Your task to perform on an android device: open app "Microsoft Outlook" (install if not already installed) Image 0: 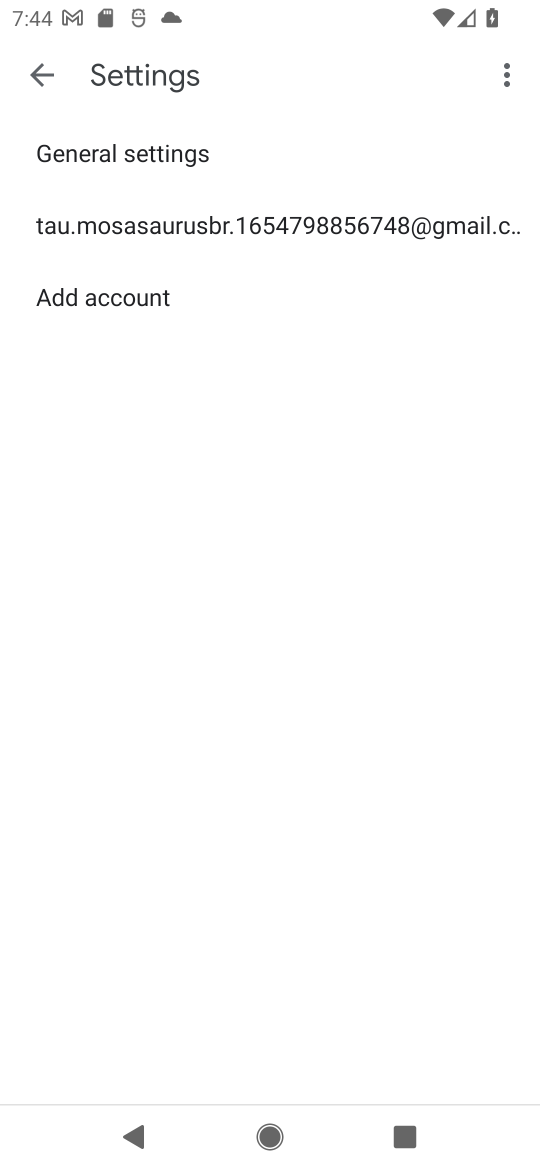
Step 0: press home button
Your task to perform on an android device: open app "Microsoft Outlook" (install if not already installed) Image 1: 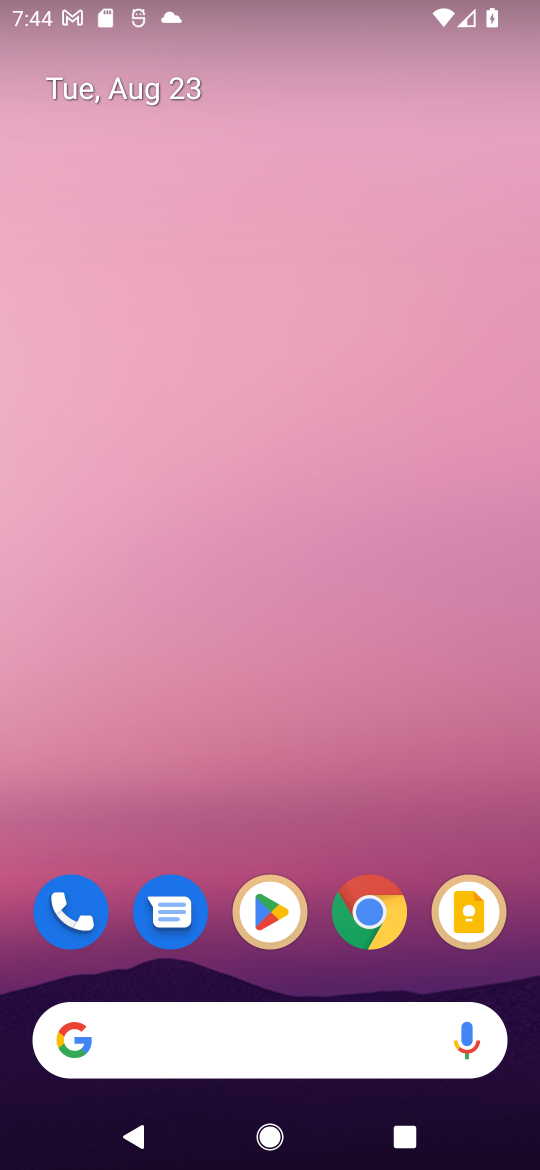
Step 1: click (267, 915)
Your task to perform on an android device: open app "Microsoft Outlook" (install if not already installed) Image 2: 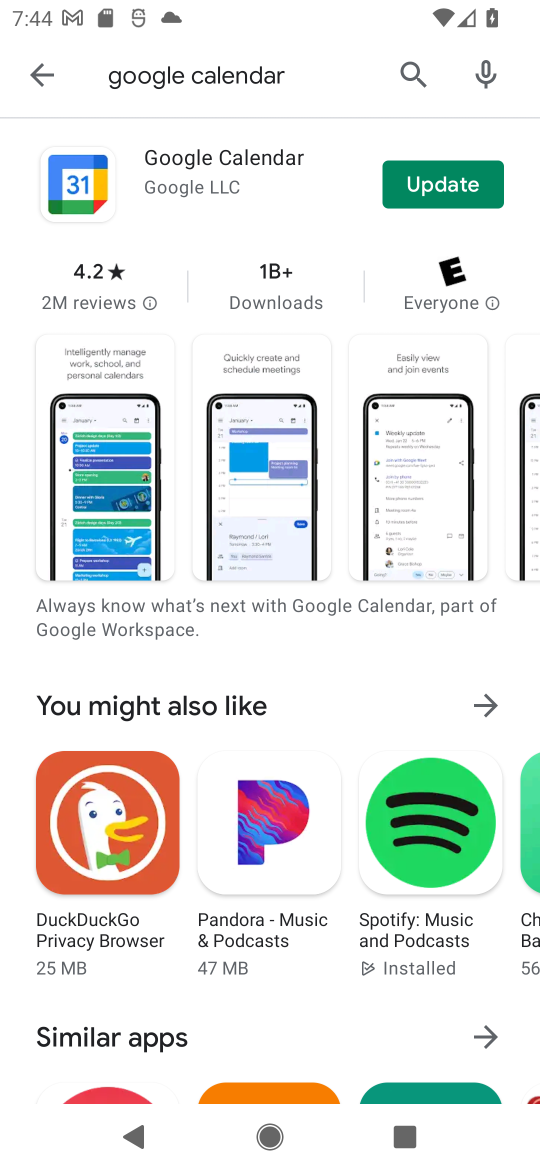
Step 2: click (407, 71)
Your task to perform on an android device: open app "Microsoft Outlook" (install if not already installed) Image 3: 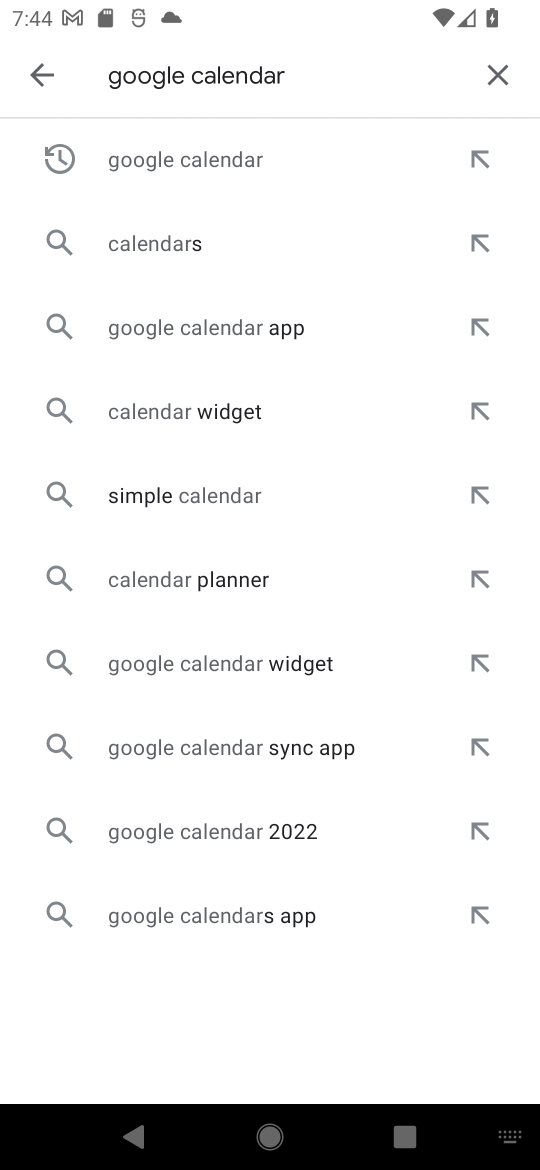
Step 3: click (496, 66)
Your task to perform on an android device: open app "Microsoft Outlook" (install if not already installed) Image 4: 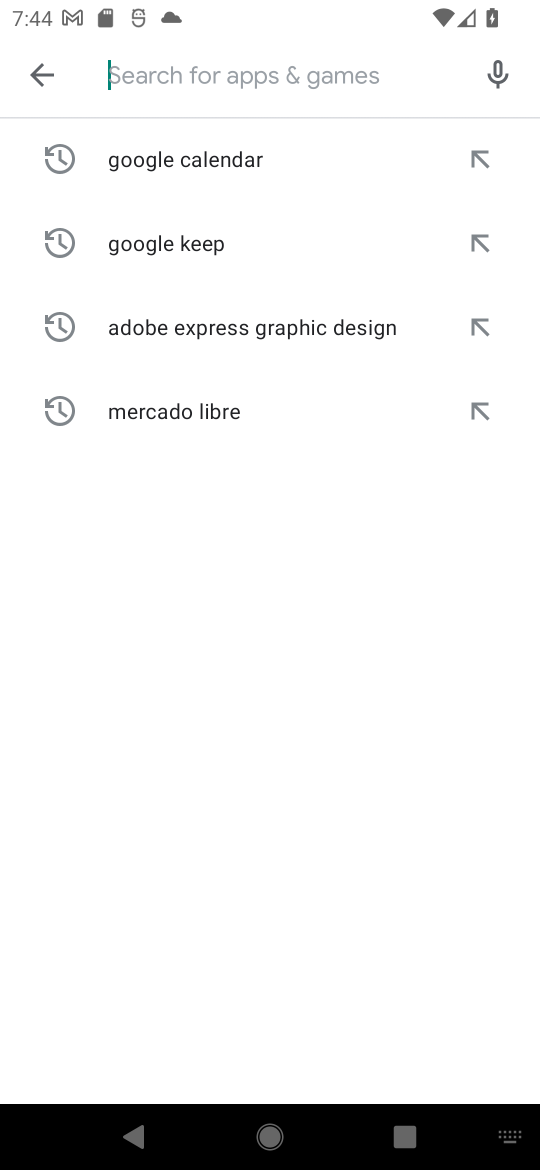
Step 4: type "Microsoft Outlook"
Your task to perform on an android device: open app "Microsoft Outlook" (install if not already installed) Image 5: 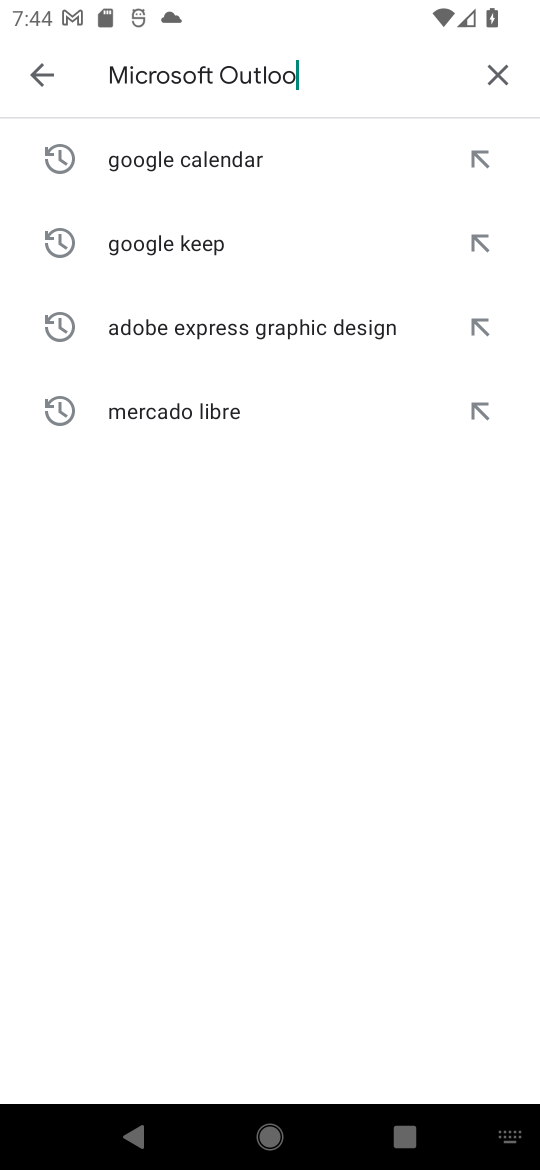
Step 5: type ""
Your task to perform on an android device: open app "Microsoft Outlook" (install if not already installed) Image 6: 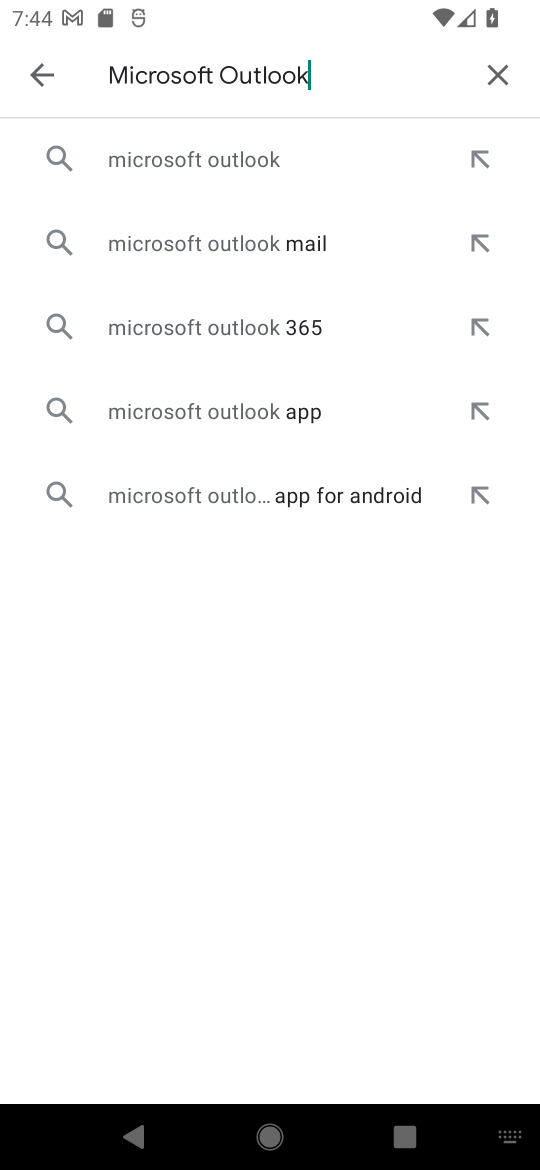
Step 6: click (239, 154)
Your task to perform on an android device: open app "Microsoft Outlook" (install if not already installed) Image 7: 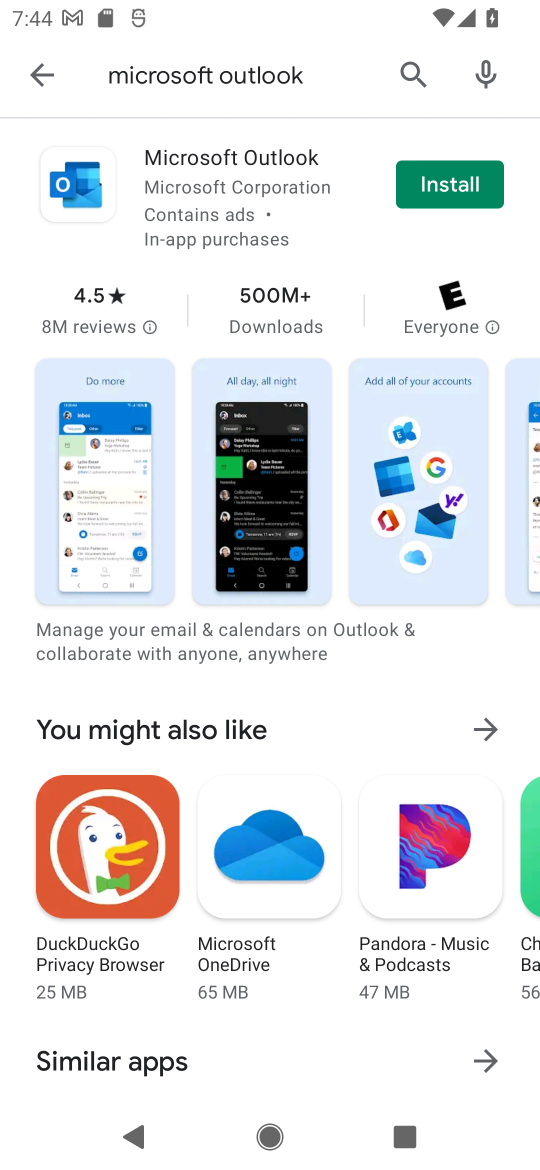
Step 7: click (447, 183)
Your task to perform on an android device: open app "Microsoft Outlook" (install if not already installed) Image 8: 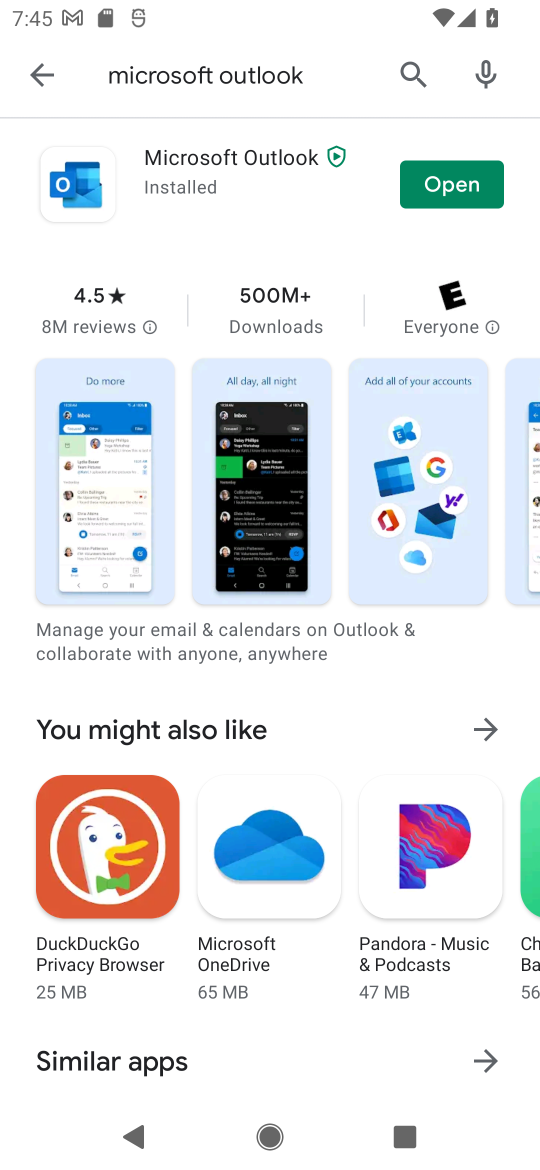
Step 8: click (444, 186)
Your task to perform on an android device: open app "Microsoft Outlook" (install if not already installed) Image 9: 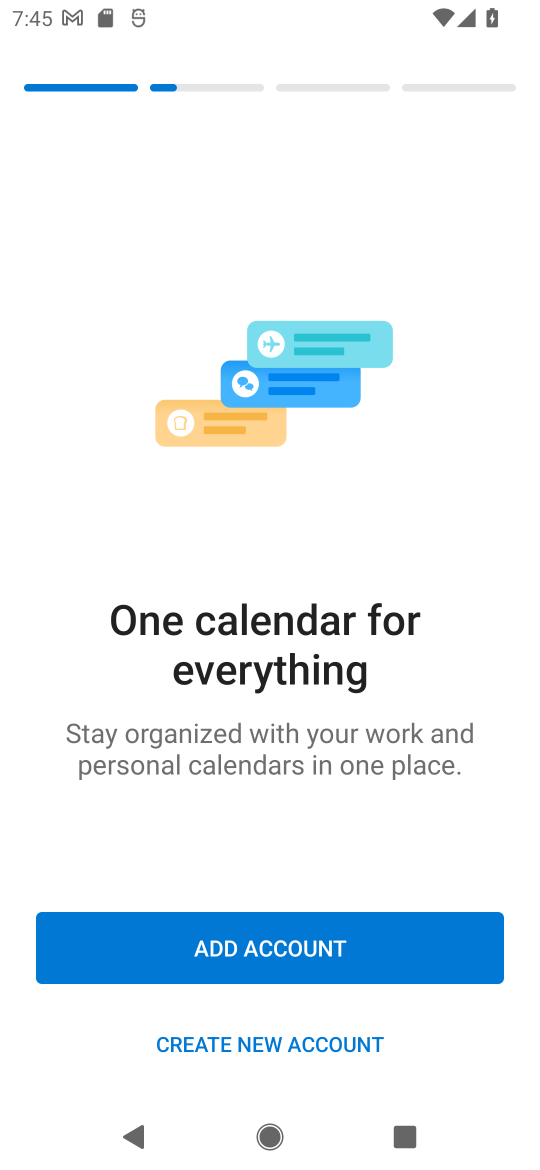
Step 9: task complete